Your task to perform on an android device: install app "McDonald's" Image 0: 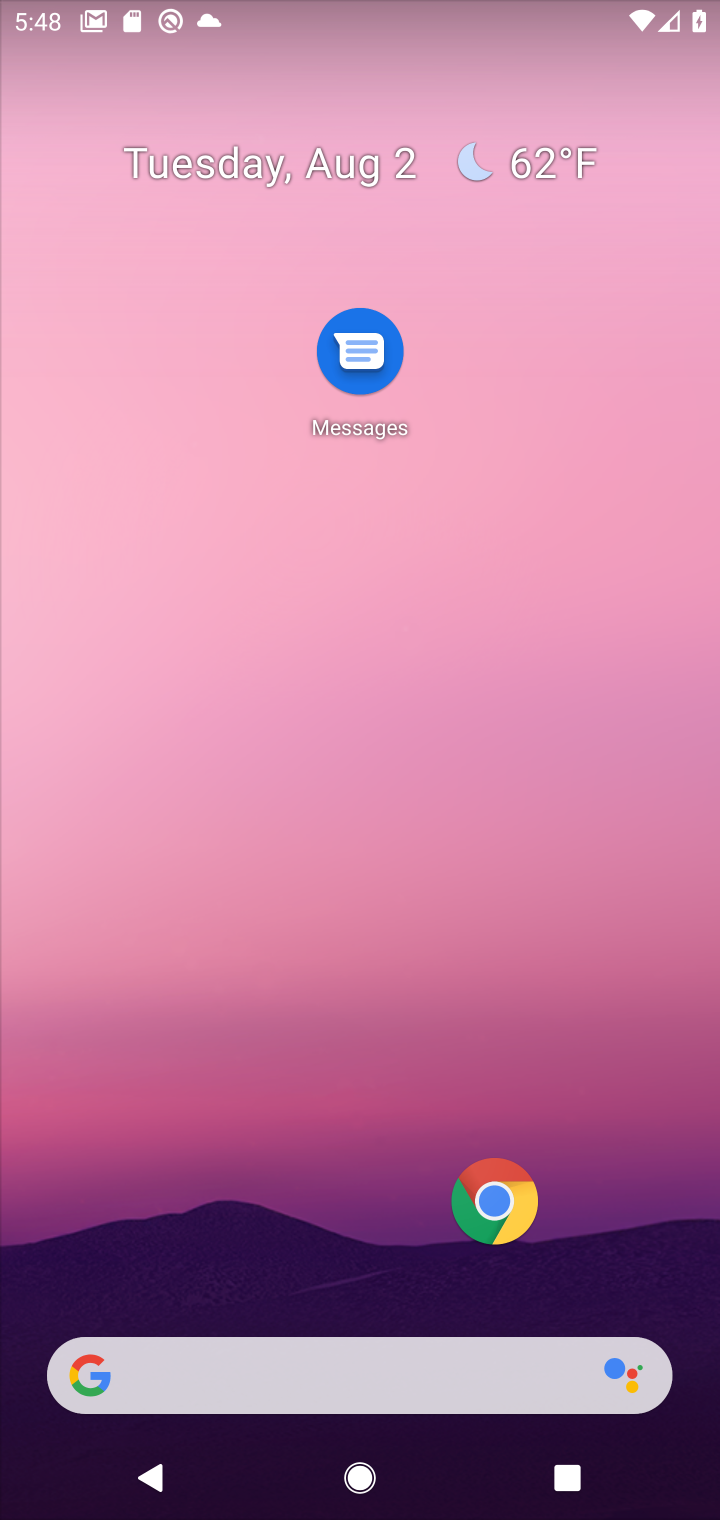
Step 0: click (465, 621)
Your task to perform on an android device: install app "McDonald's" Image 1: 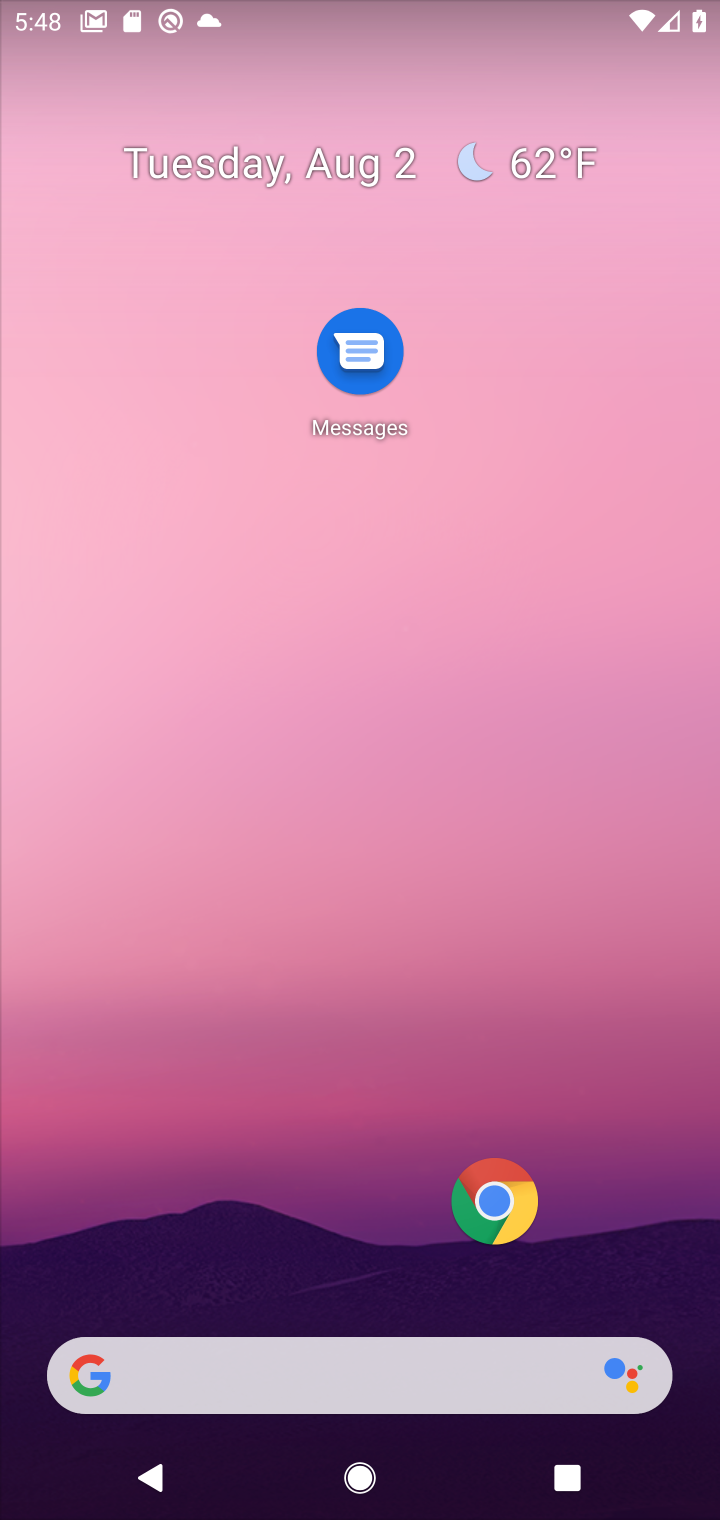
Step 1: drag from (342, 1151) to (673, 448)
Your task to perform on an android device: install app "McDonald's" Image 2: 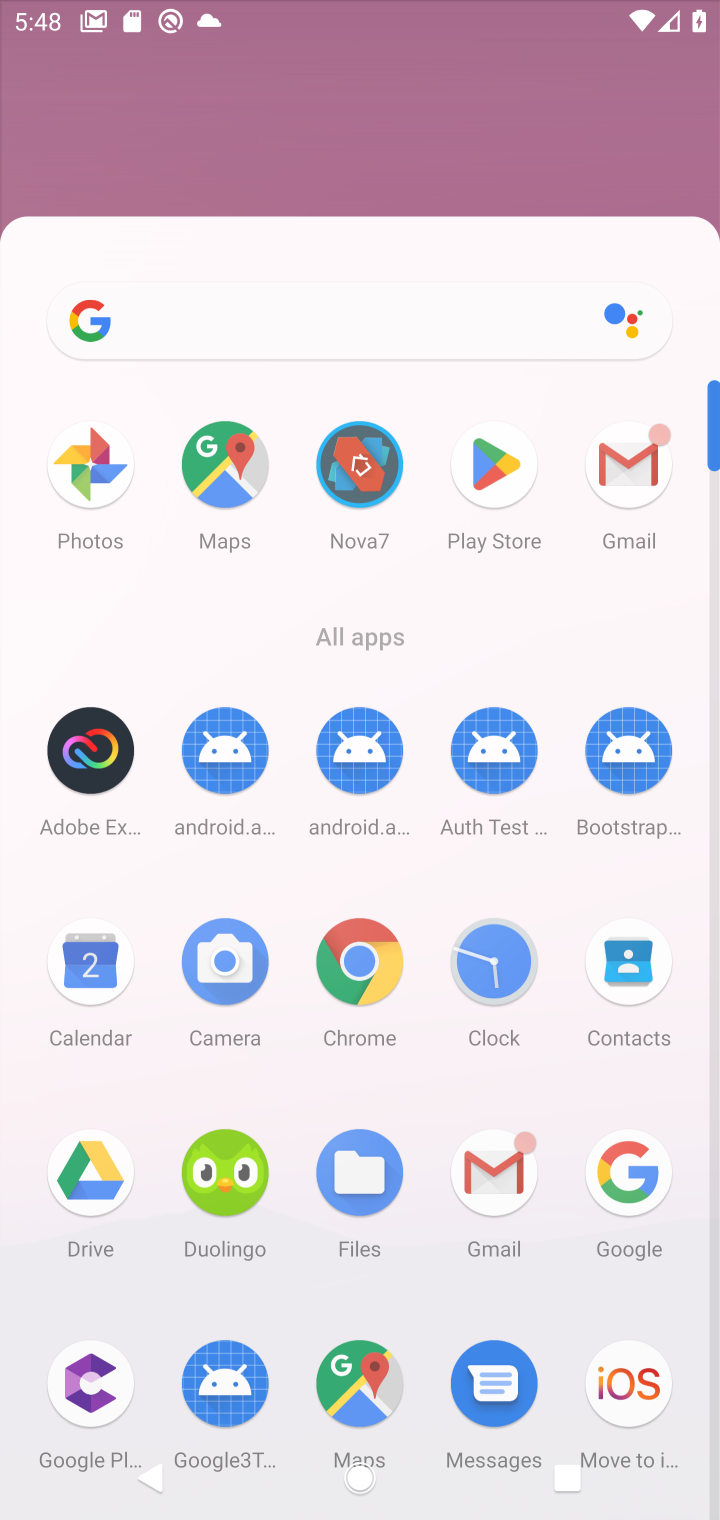
Step 2: click (485, 291)
Your task to perform on an android device: install app "McDonald's" Image 3: 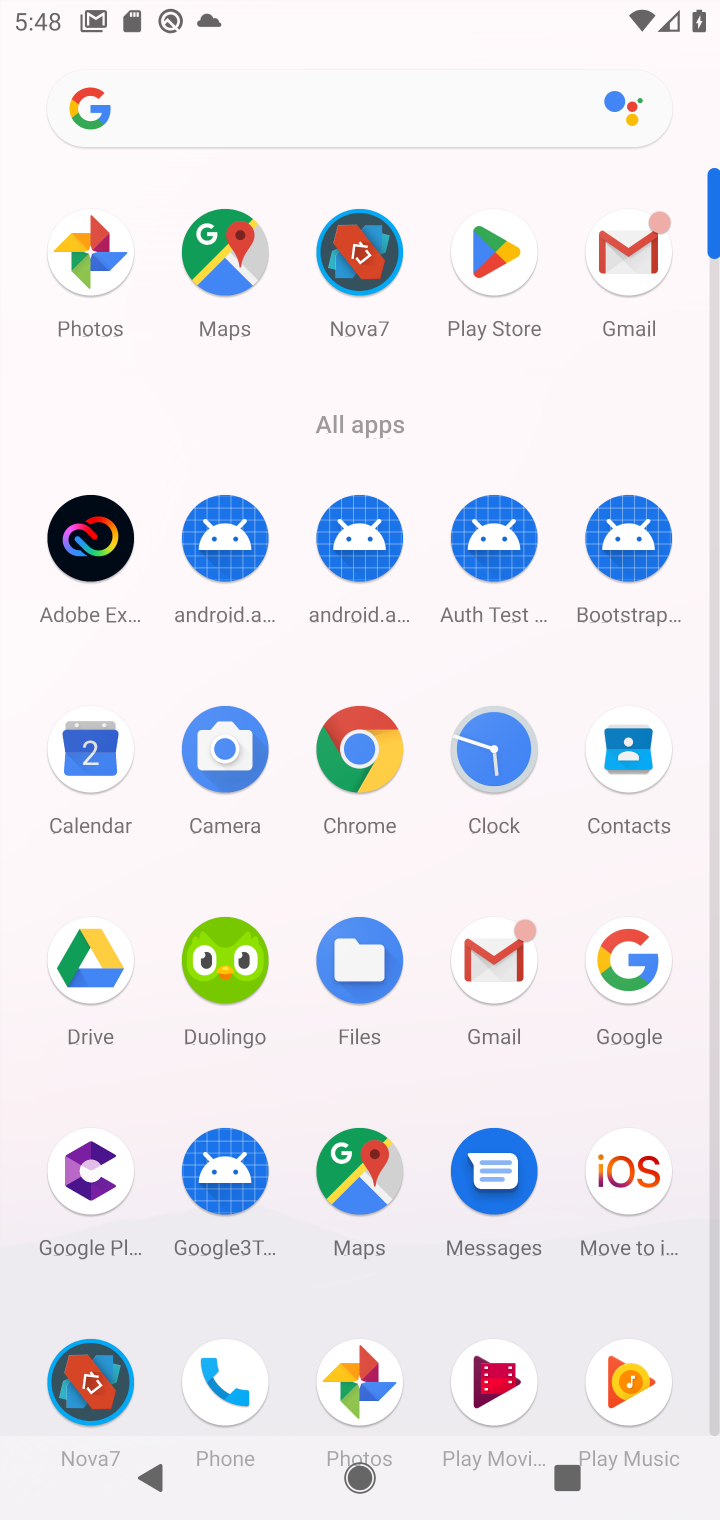
Step 3: click (496, 224)
Your task to perform on an android device: install app "McDonald's" Image 4: 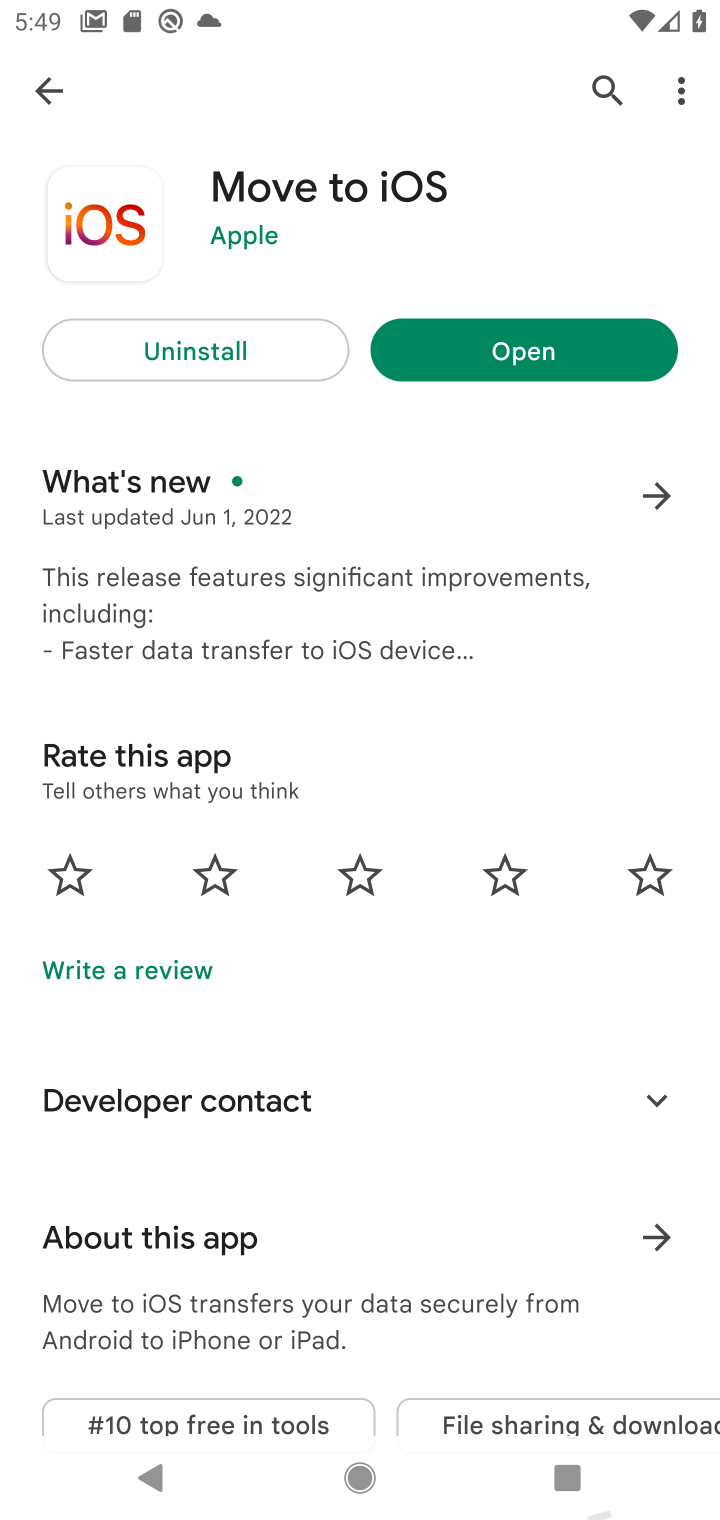
Step 4: drag from (155, 701) to (549, 1497)
Your task to perform on an android device: install app "McDonald's" Image 5: 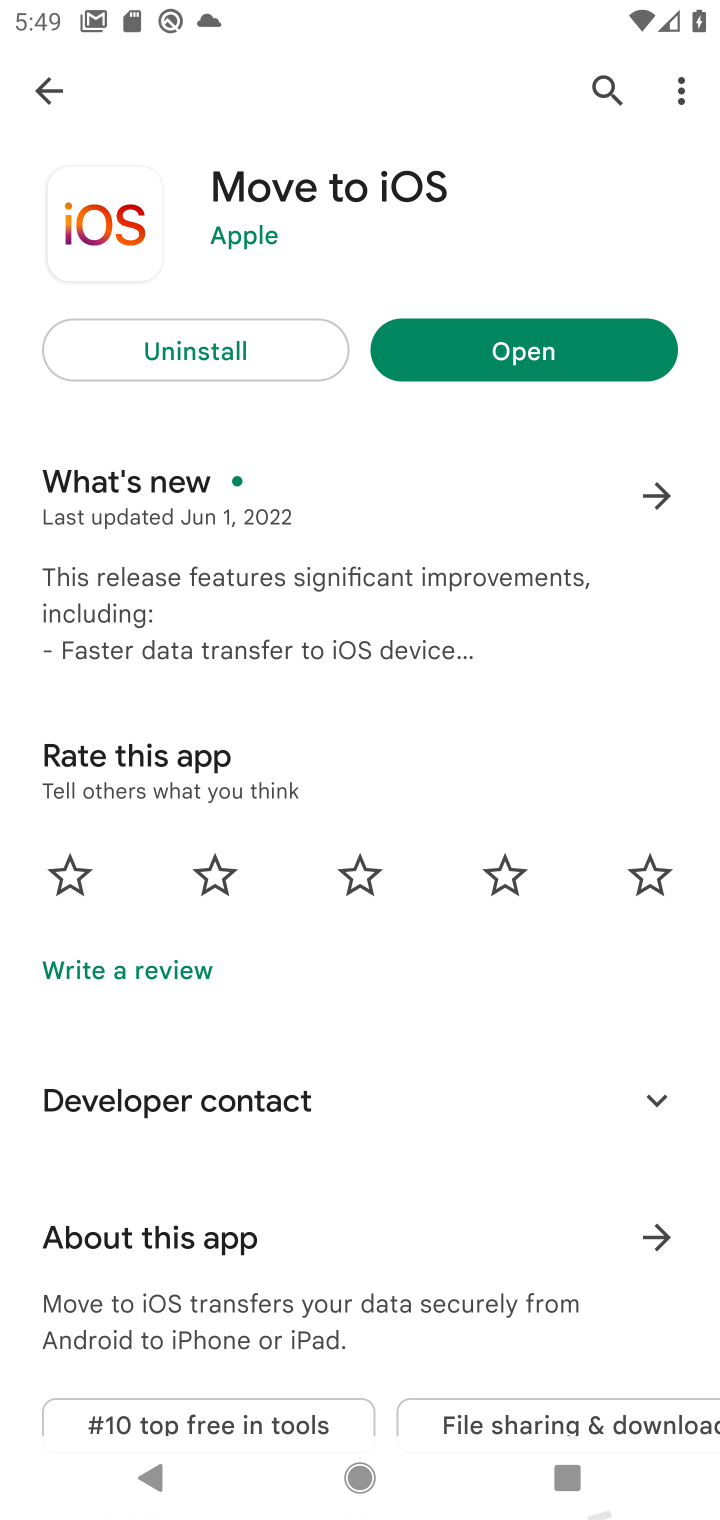
Step 5: click (599, 103)
Your task to perform on an android device: install app "McDonald's" Image 6: 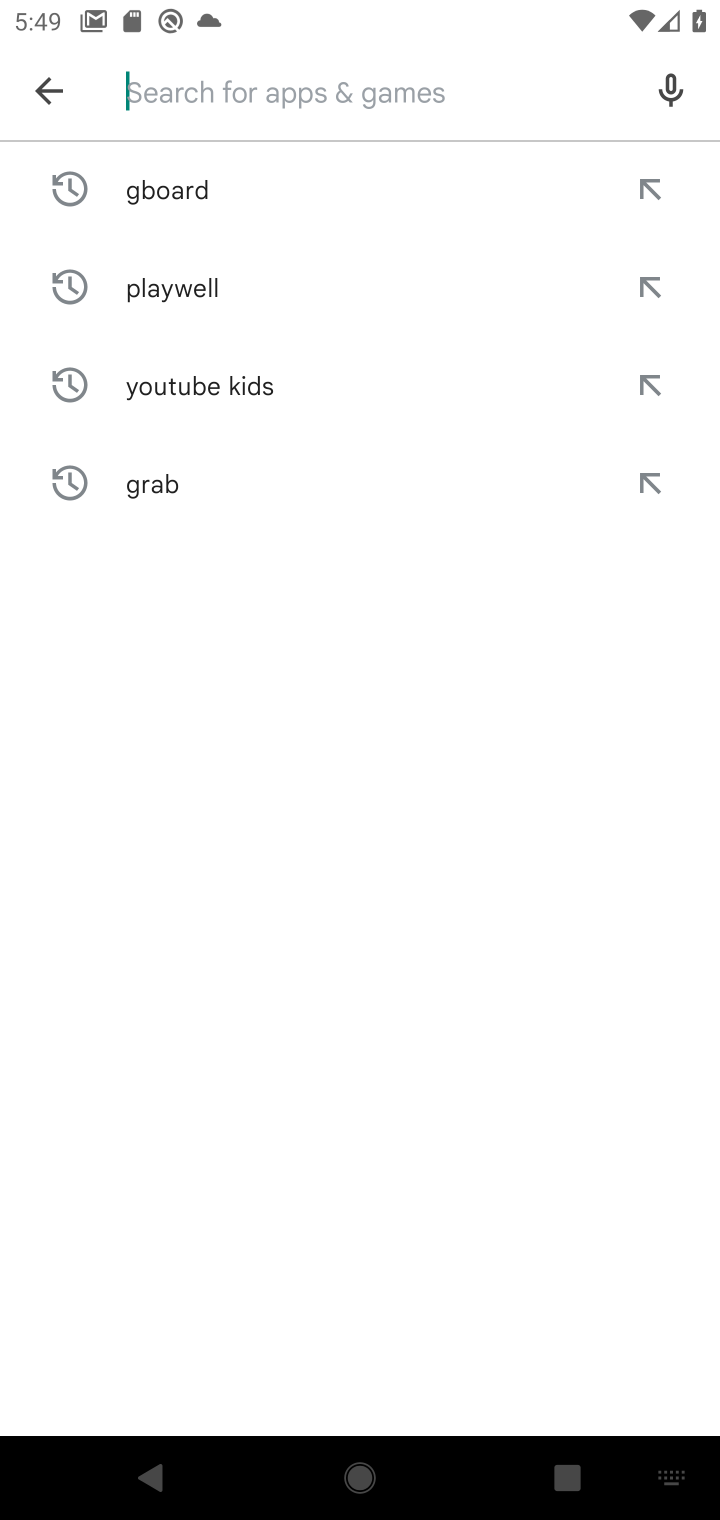
Step 6: click (244, 96)
Your task to perform on an android device: install app "McDonald's" Image 7: 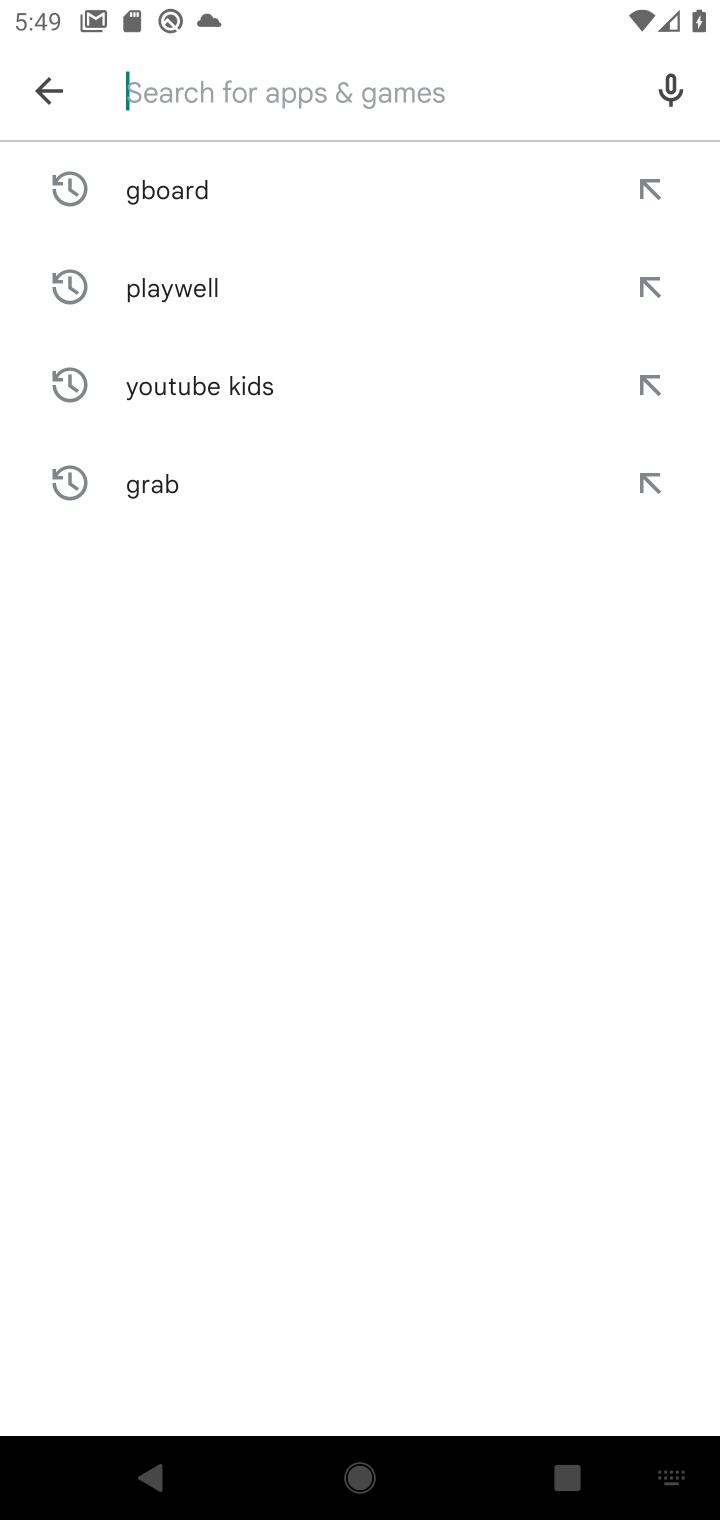
Step 7: type "McDonald's"
Your task to perform on an android device: install app "McDonald's" Image 8: 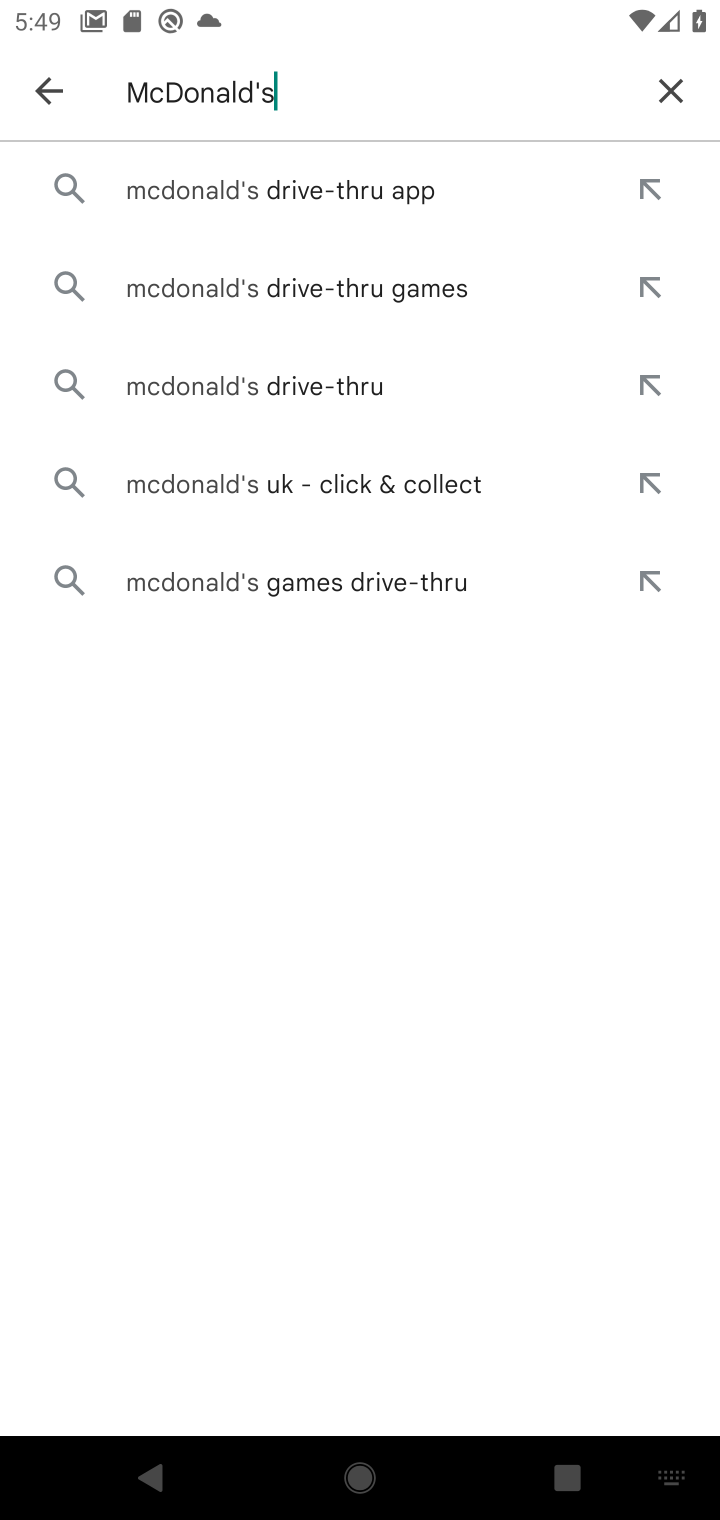
Step 8: click (145, 189)
Your task to perform on an android device: install app "McDonald's" Image 9: 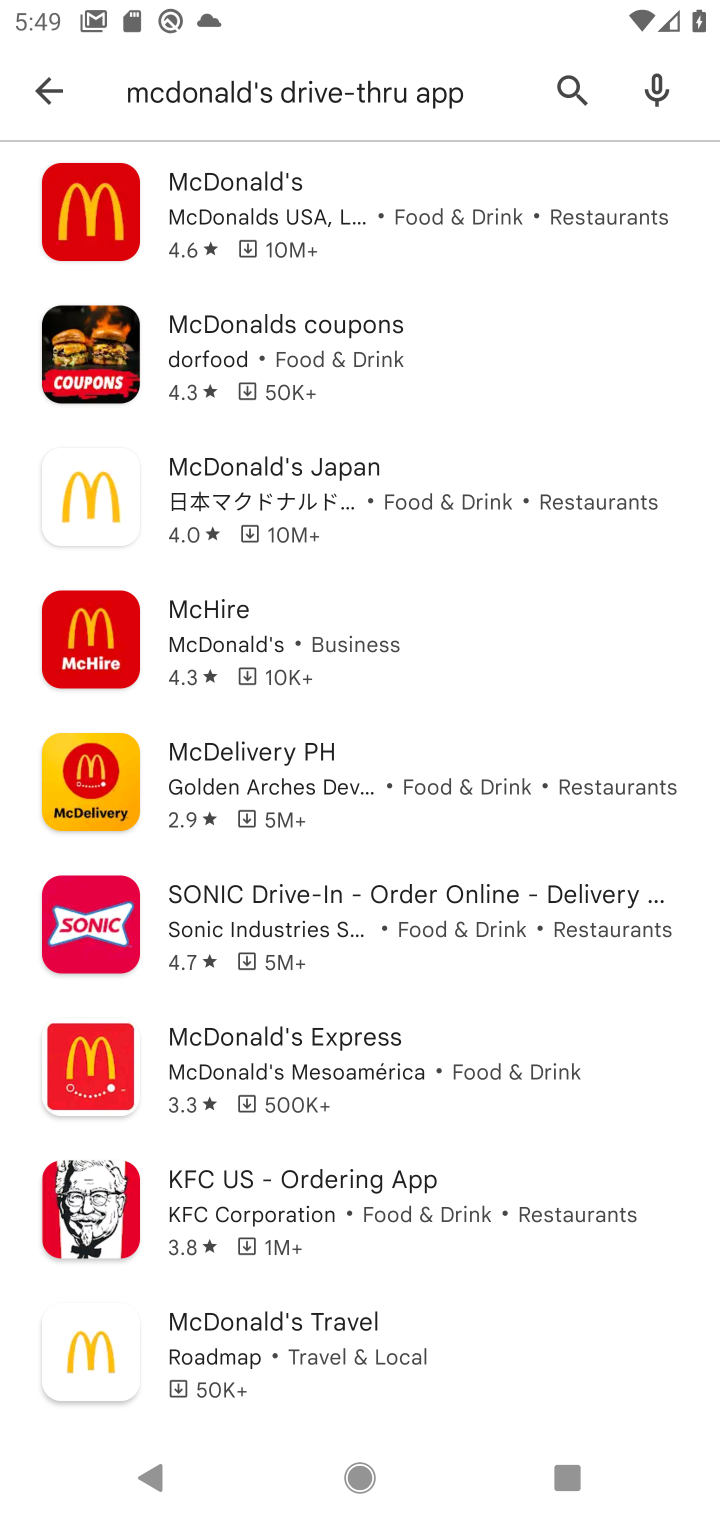
Step 9: click (246, 204)
Your task to perform on an android device: install app "McDonald's" Image 10: 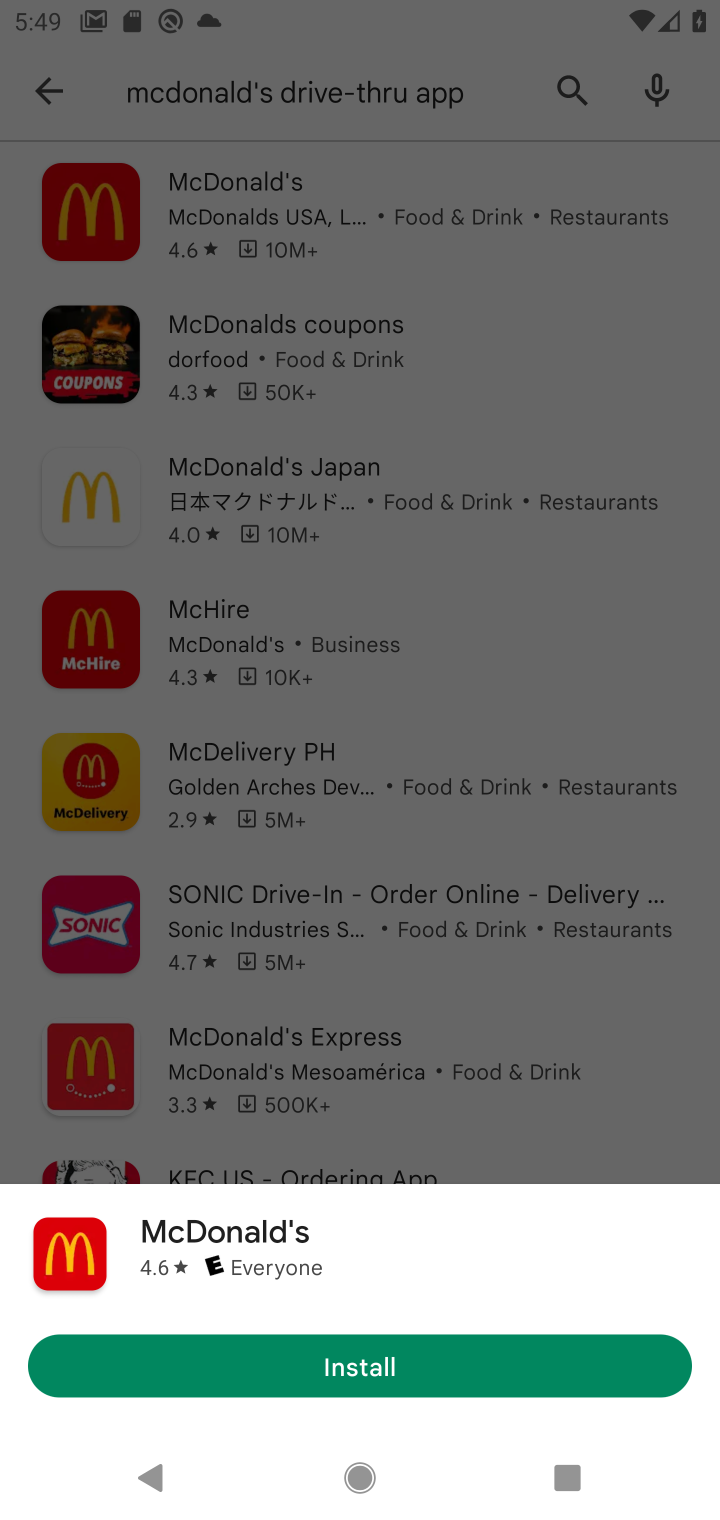
Step 10: click (107, 156)
Your task to perform on an android device: install app "McDonald's" Image 11: 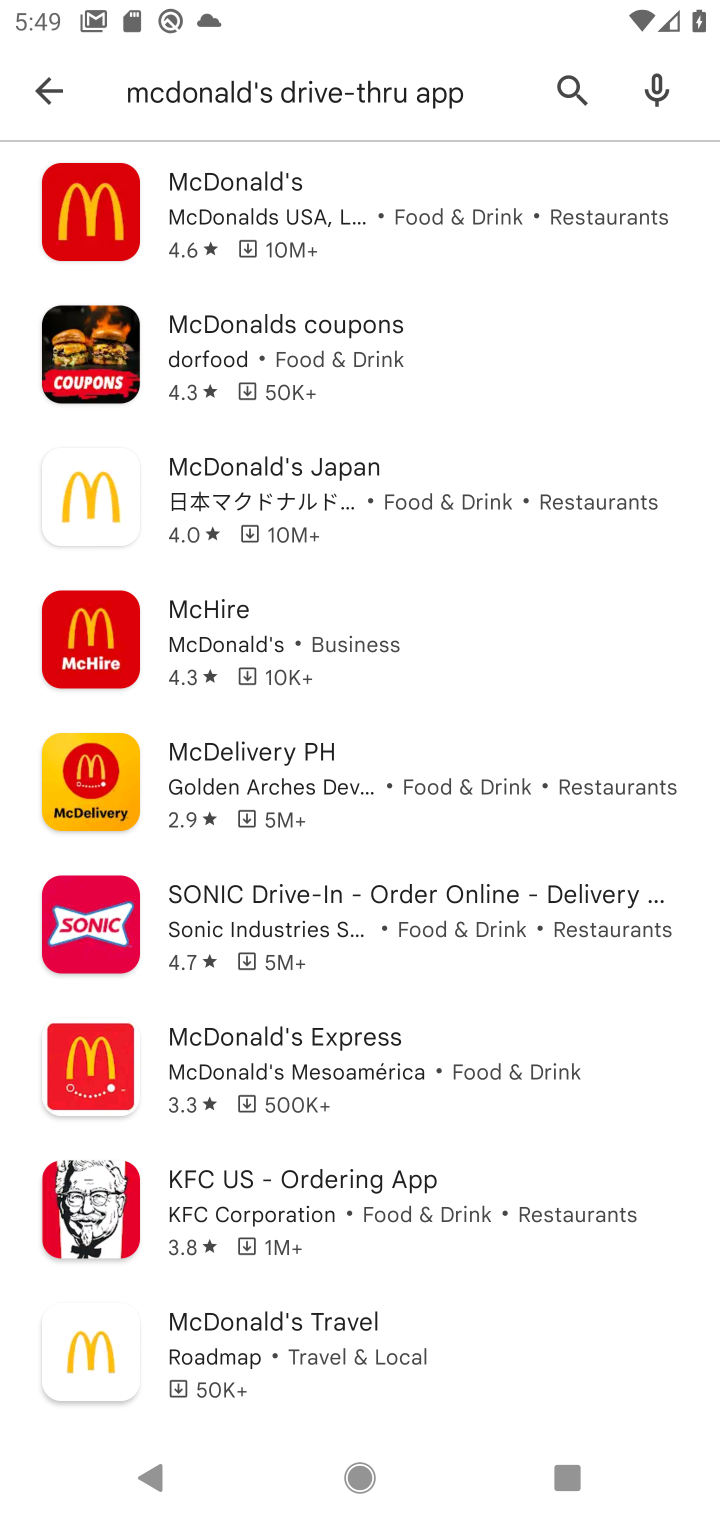
Step 11: click (128, 181)
Your task to perform on an android device: install app "McDonald's" Image 12: 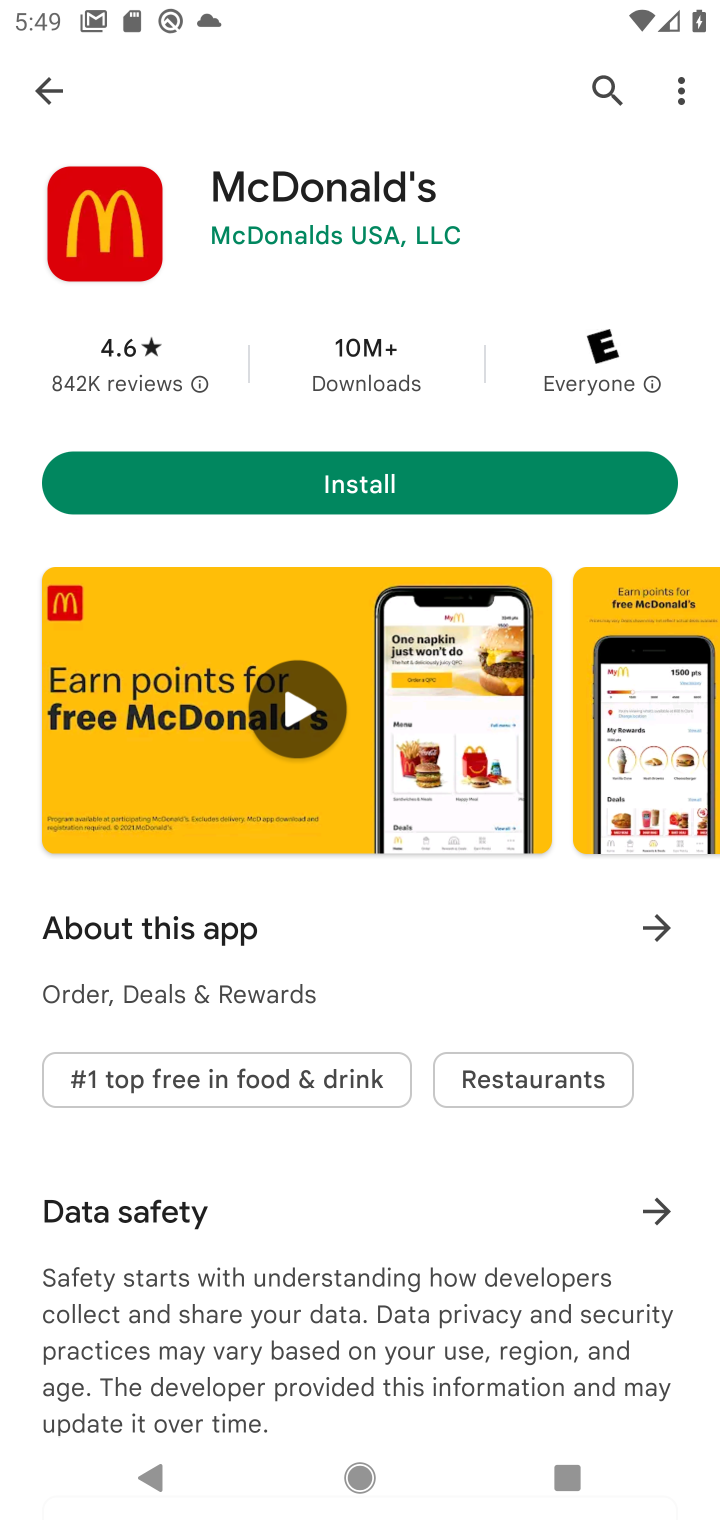
Step 12: click (310, 472)
Your task to perform on an android device: install app "McDonald's" Image 13: 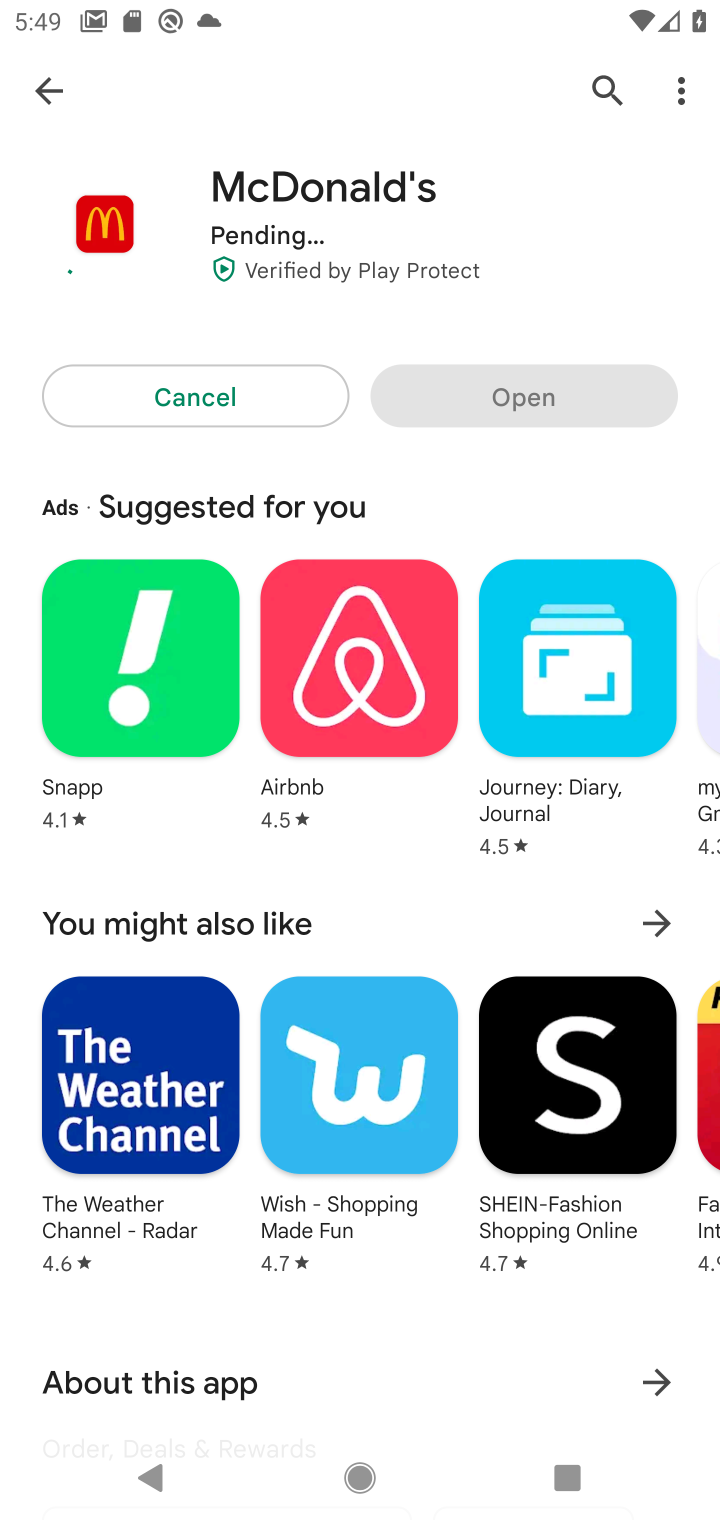
Step 13: drag from (370, 388) to (421, 1228)
Your task to perform on an android device: install app "McDonald's" Image 14: 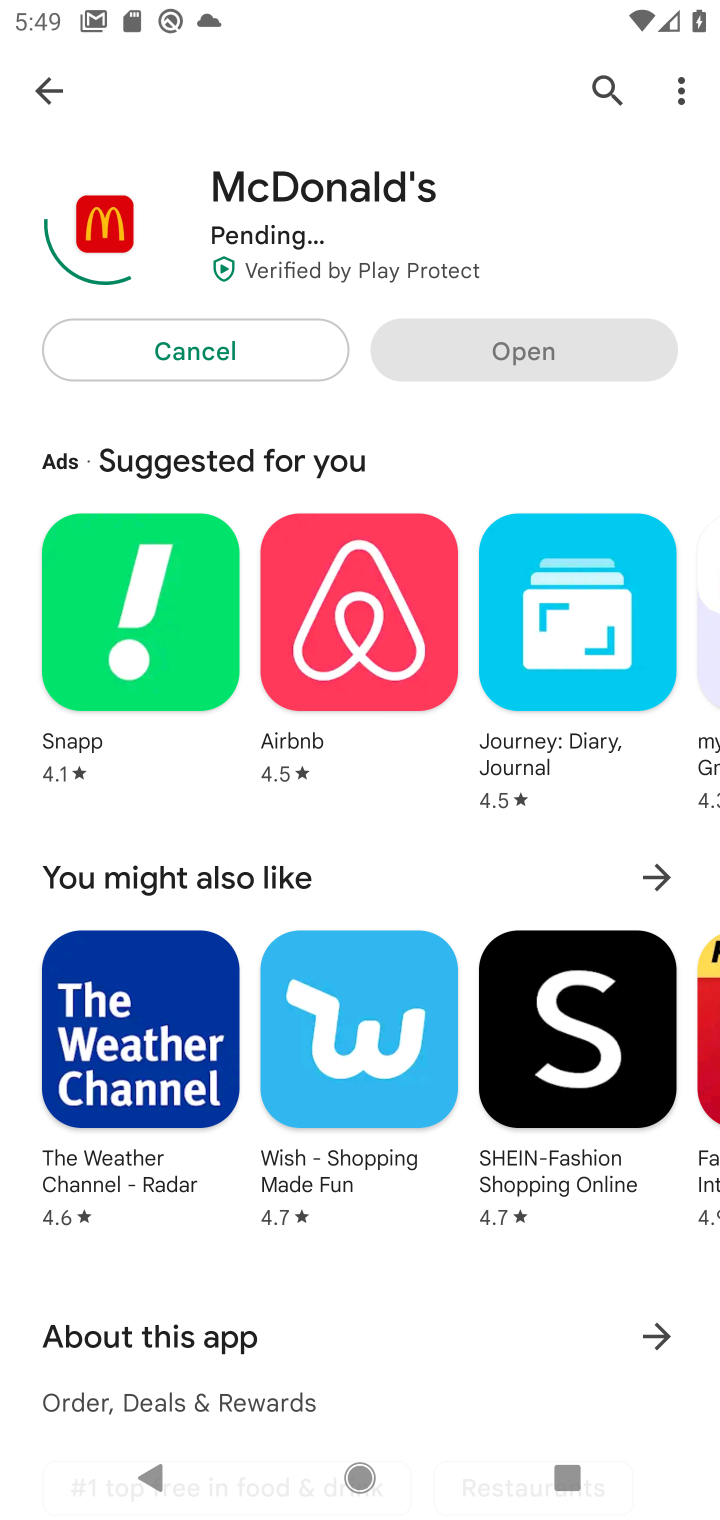
Step 14: click (368, 826)
Your task to perform on an android device: install app "McDonald's" Image 15: 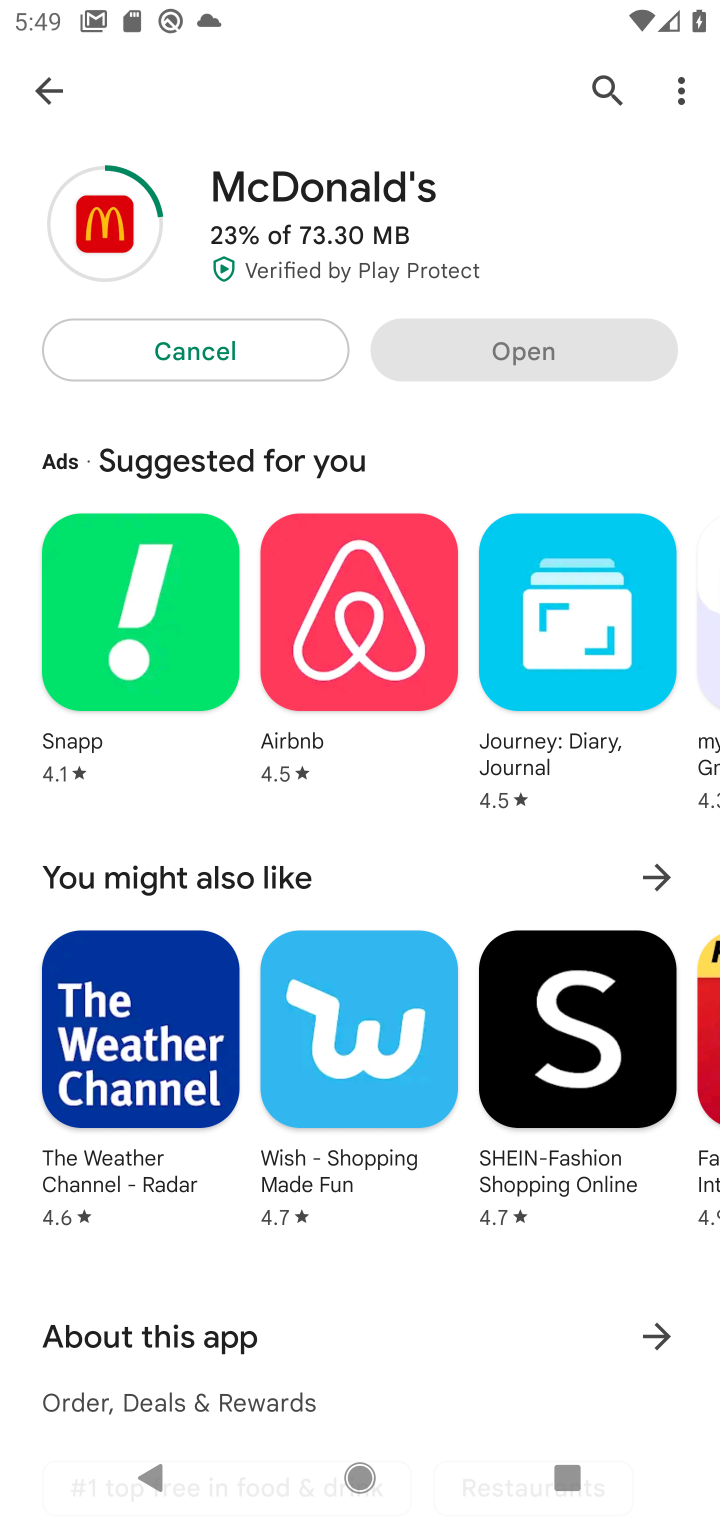
Step 15: click (308, 219)
Your task to perform on an android device: install app "McDonald's" Image 16: 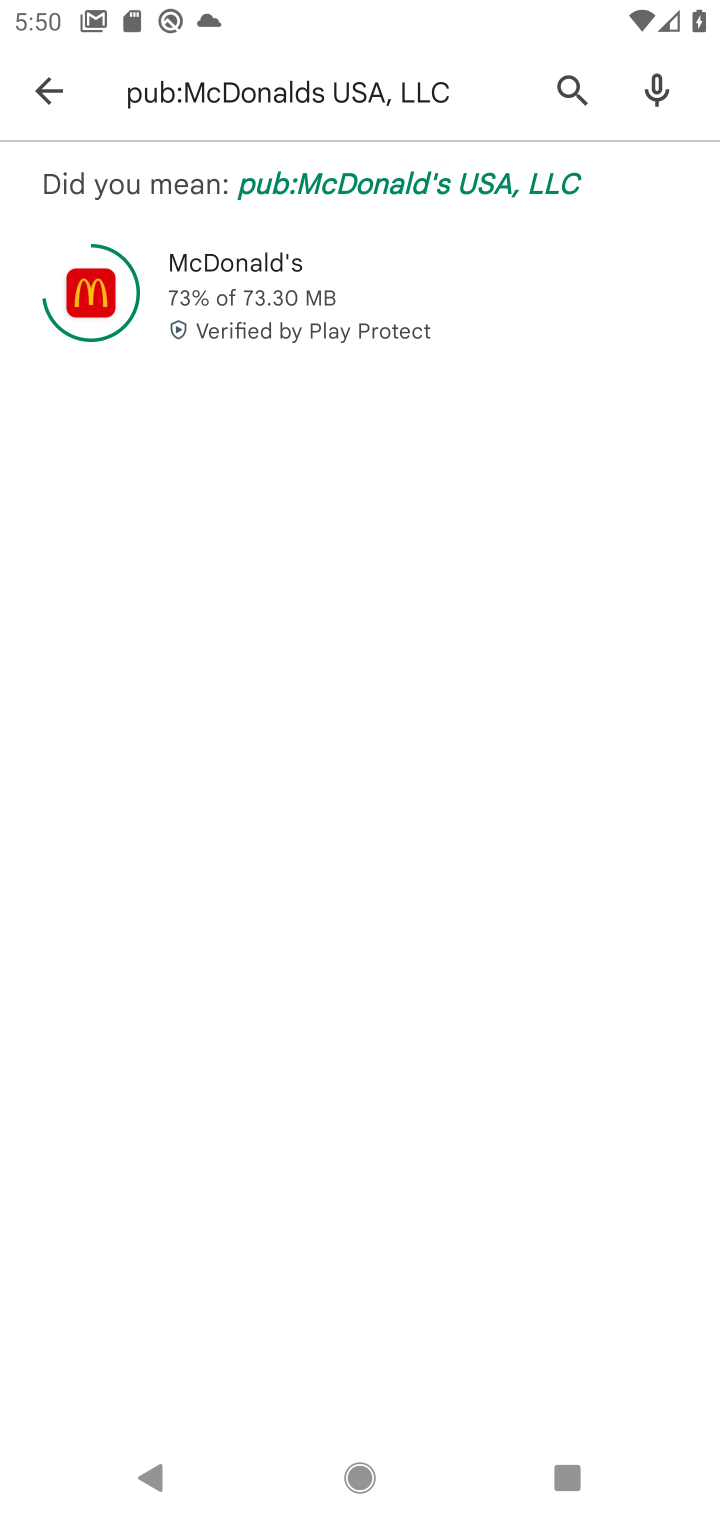
Step 16: drag from (244, 328) to (345, 1204)
Your task to perform on an android device: install app "McDonald's" Image 17: 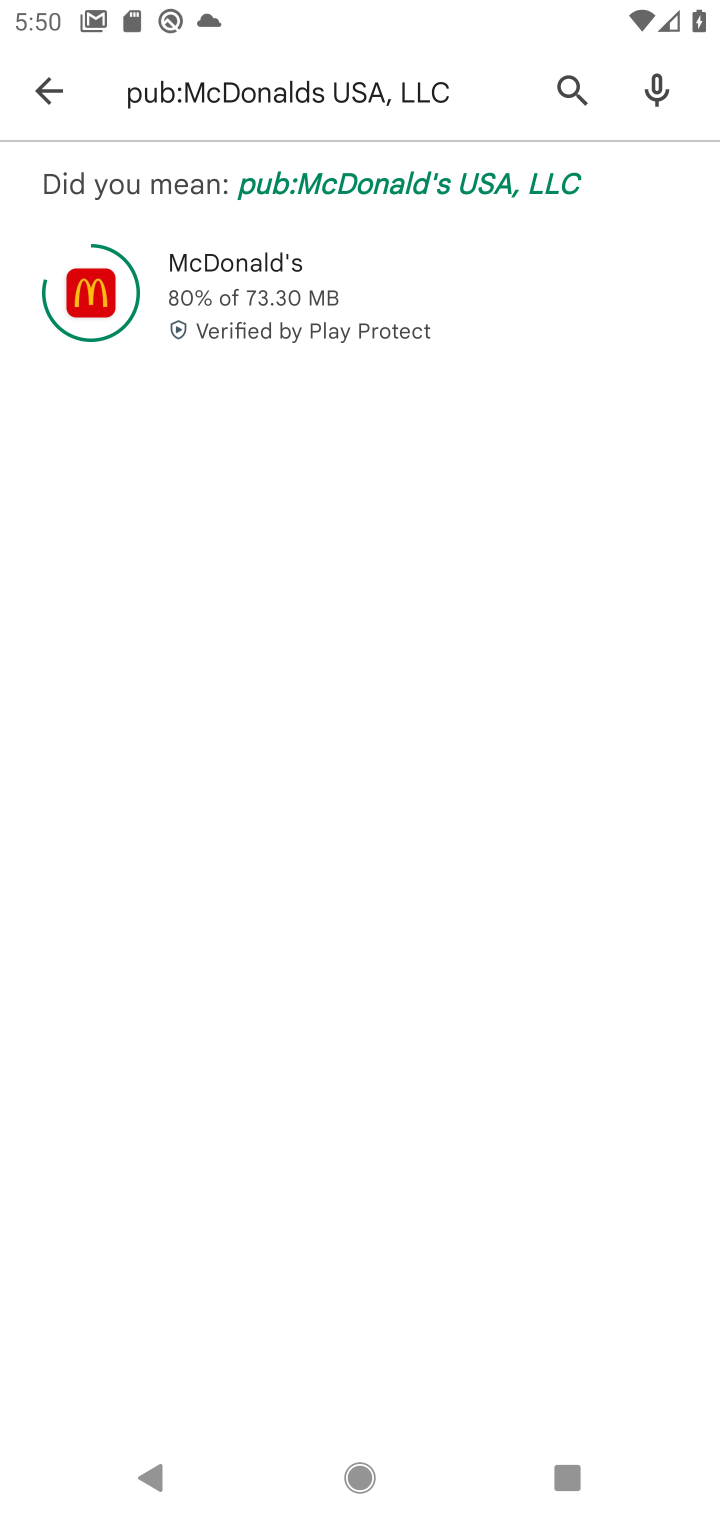
Step 17: drag from (391, 455) to (373, 1178)
Your task to perform on an android device: install app "McDonald's" Image 18: 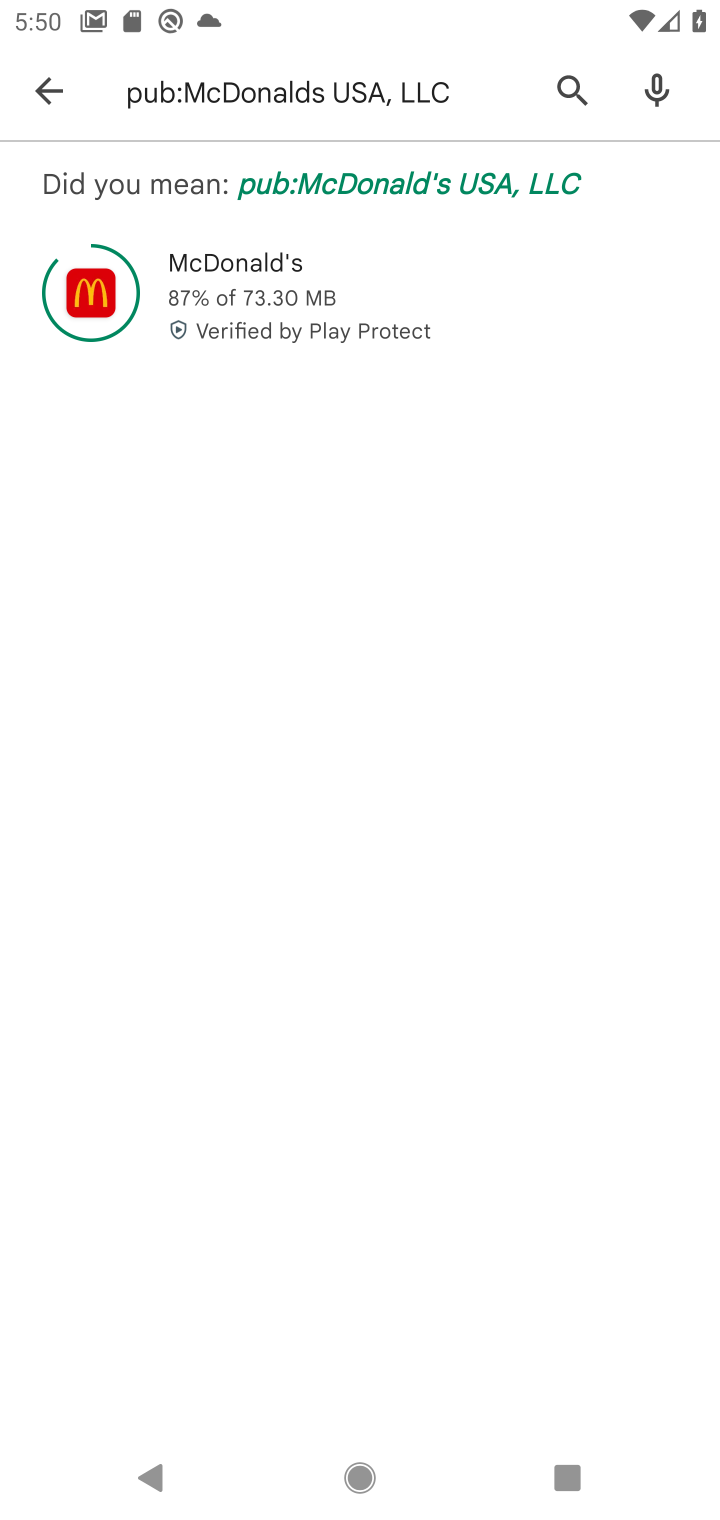
Step 18: drag from (393, 378) to (375, 1123)
Your task to perform on an android device: install app "McDonald's" Image 19: 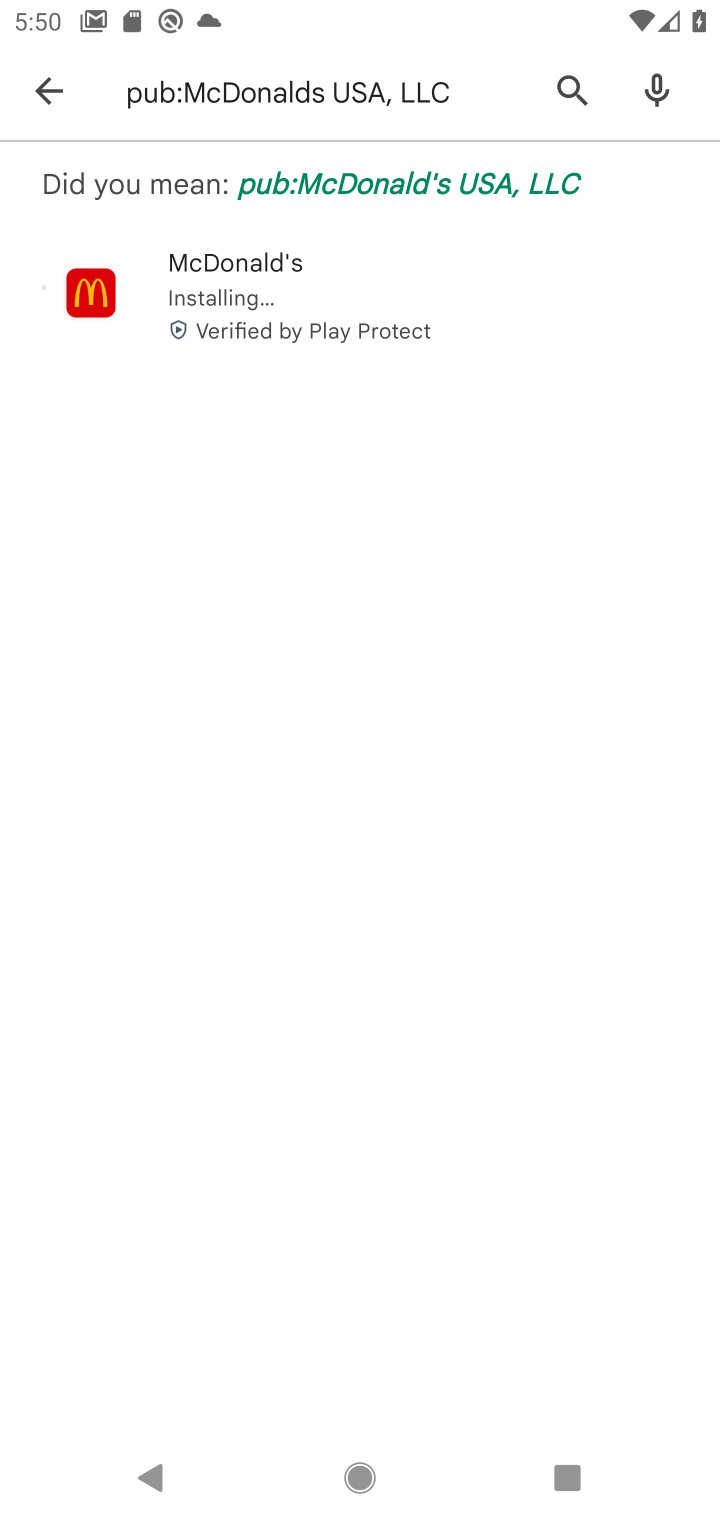
Step 19: click (232, 284)
Your task to perform on an android device: install app "McDonald's" Image 20: 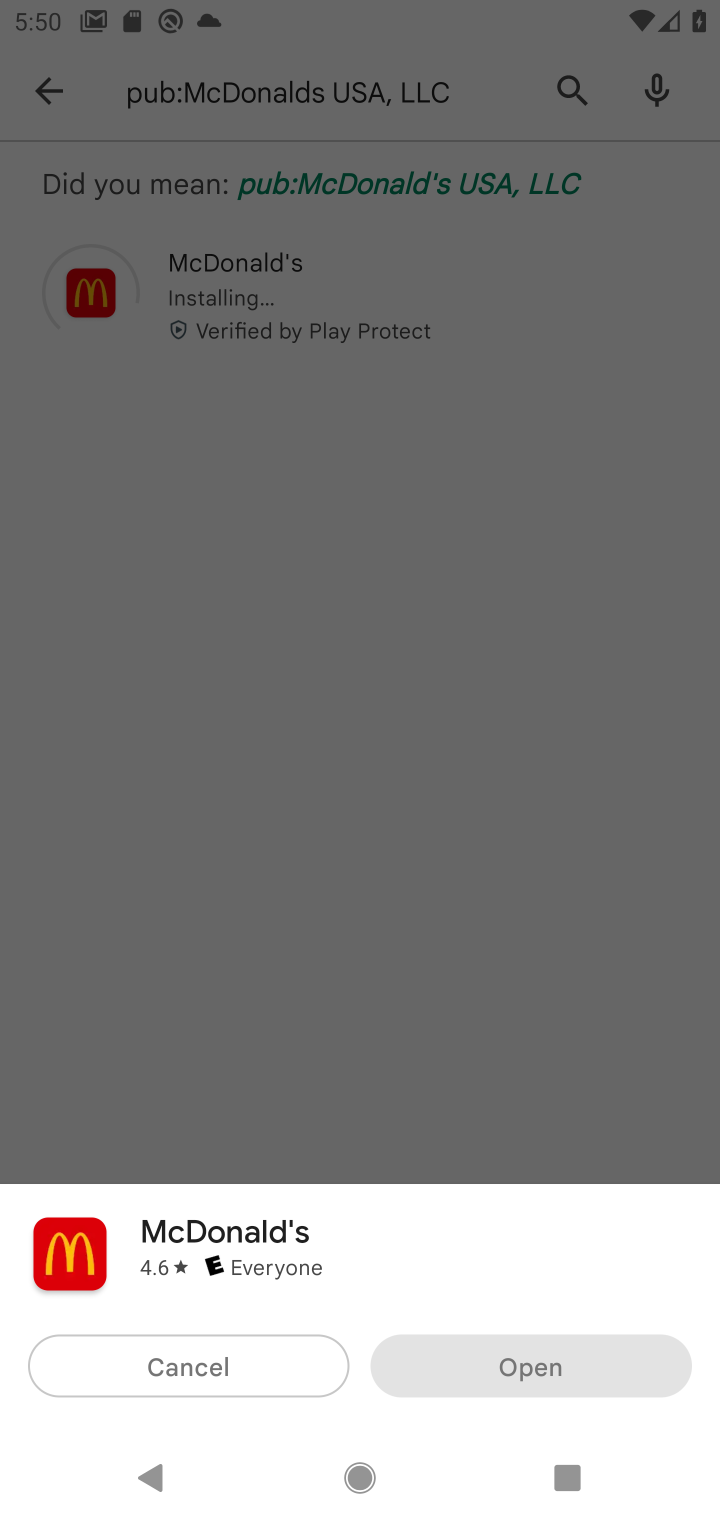
Step 20: click (210, 1249)
Your task to perform on an android device: install app "McDonald's" Image 21: 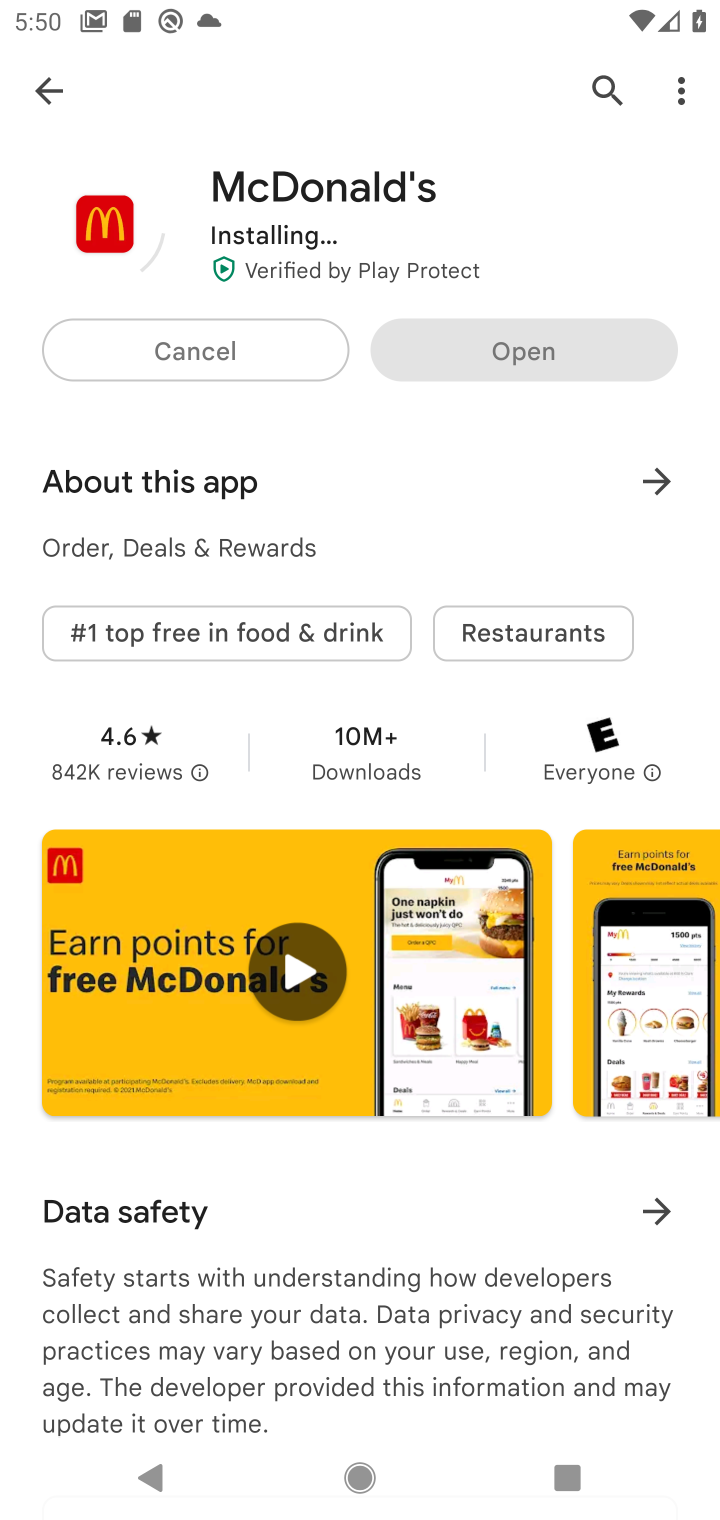
Step 21: task complete